Your task to perform on an android device: turn on sleep mode Image 0: 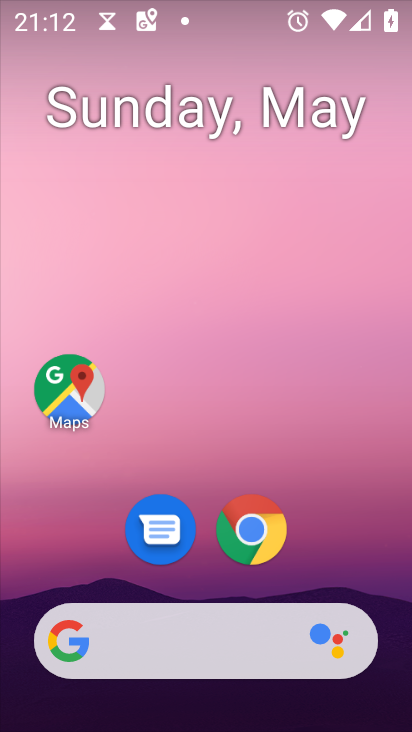
Step 0: drag from (366, 544) to (381, 5)
Your task to perform on an android device: turn on sleep mode Image 1: 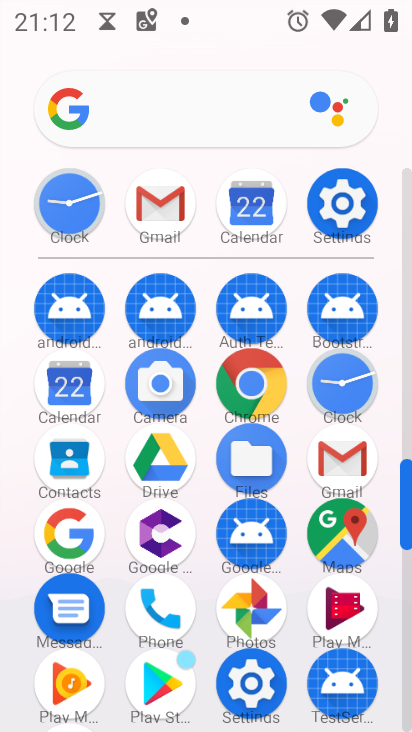
Step 1: click (339, 203)
Your task to perform on an android device: turn on sleep mode Image 2: 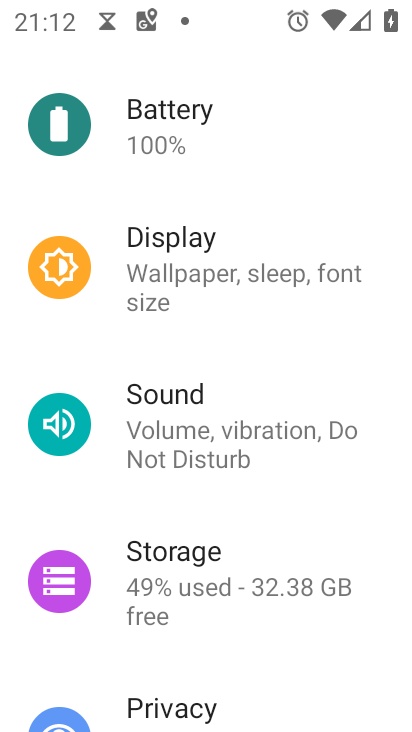
Step 2: click (158, 269)
Your task to perform on an android device: turn on sleep mode Image 3: 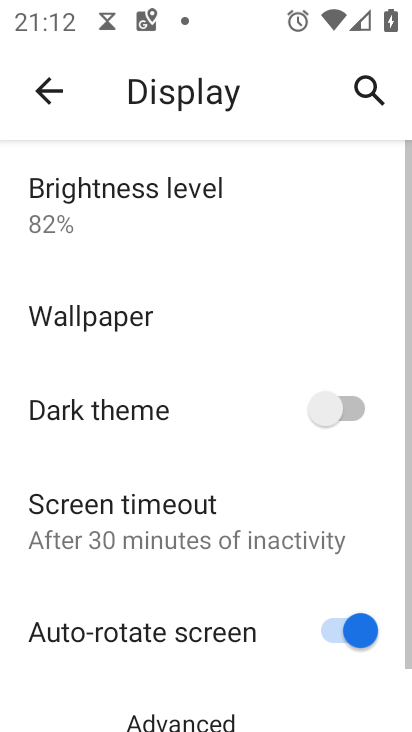
Step 3: drag from (147, 477) to (149, 147)
Your task to perform on an android device: turn on sleep mode Image 4: 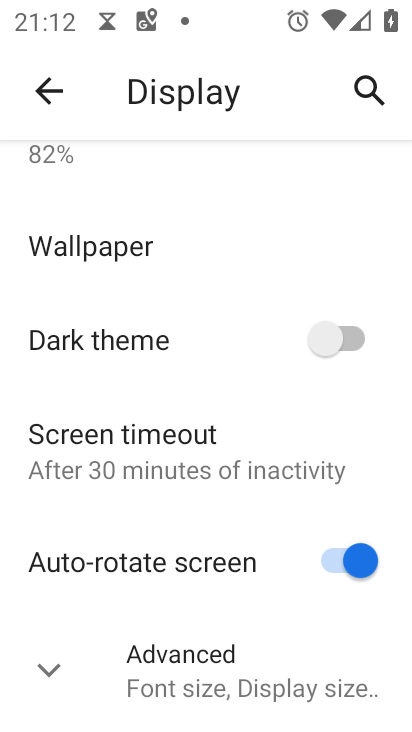
Step 4: click (48, 679)
Your task to perform on an android device: turn on sleep mode Image 5: 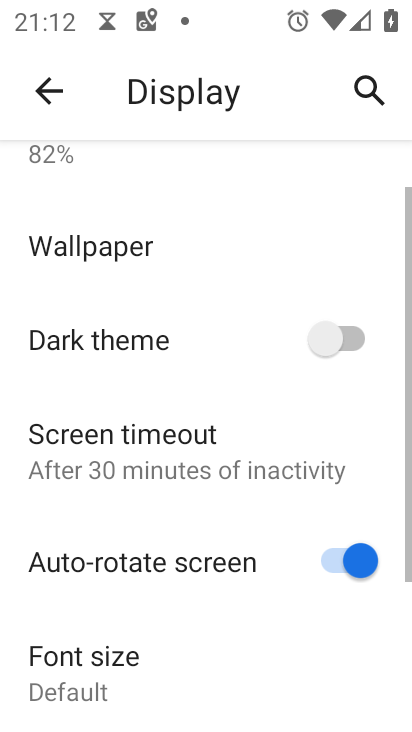
Step 5: task complete